Your task to perform on an android device: turn on showing notifications on the lock screen Image 0: 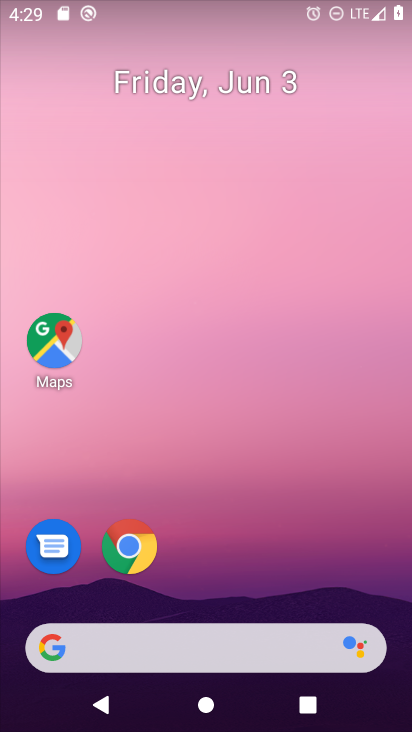
Step 0: drag from (246, 546) to (269, 18)
Your task to perform on an android device: turn on showing notifications on the lock screen Image 1: 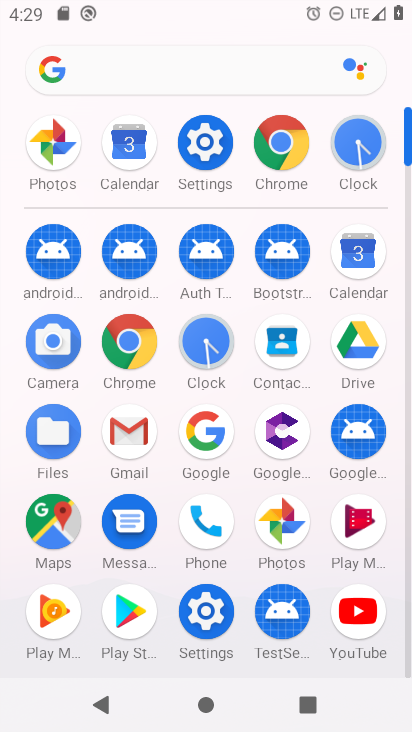
Step 1: click (208, 147)
Your task to perform on an android device: turn on showing notifications on the lock screen Image 2: 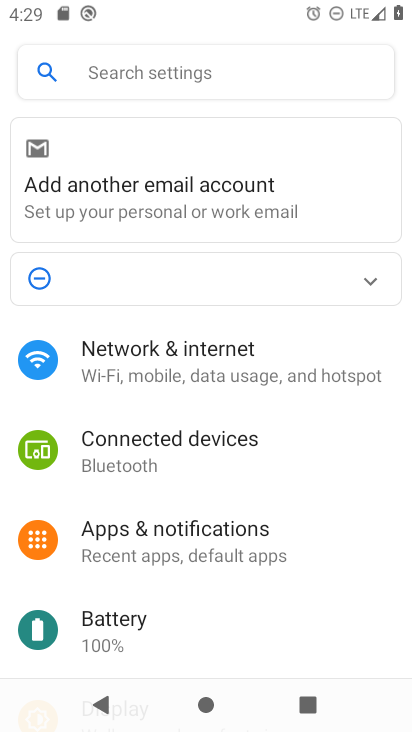
Step 2: click (171, 541)
Your task to perform on an android device: turn on showing notifications on the lock screen Image 3: 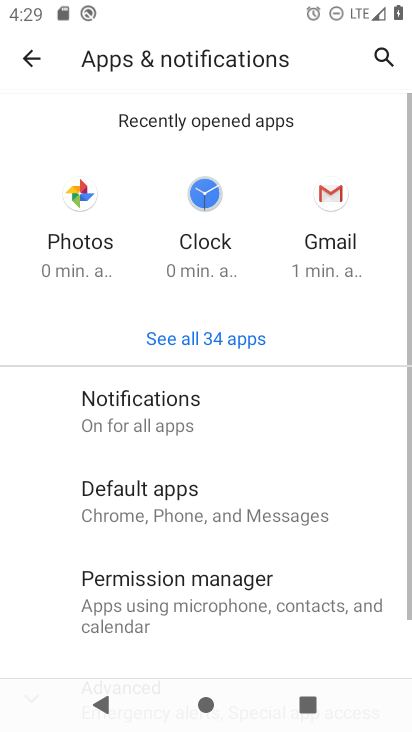
Step 3: click (212, 429)
Your task to perform on an android device: turn on showing notifications on the lock screen Image 4: 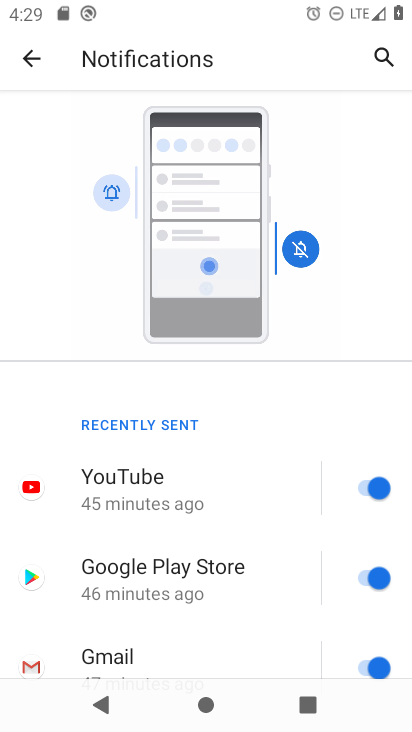
Step 4: task complete